Your task to perform on an android device: Open calendar and show me the second week of next month Image 0: 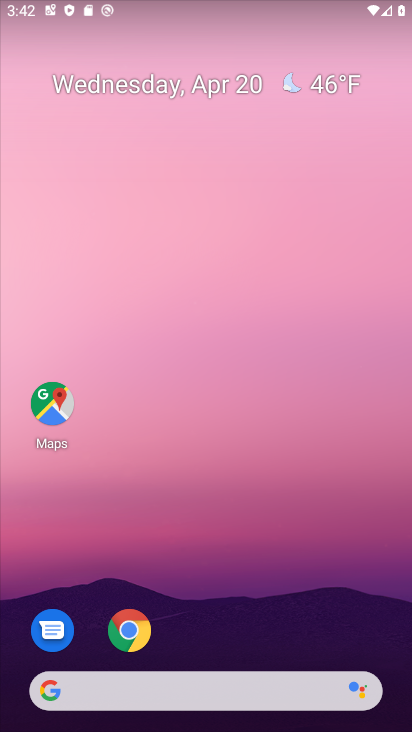
Step 0: drag from (241, 661) to (241, 316)
Your task to perform on an android device: Open calendar and show me the second week of next month Image 1: 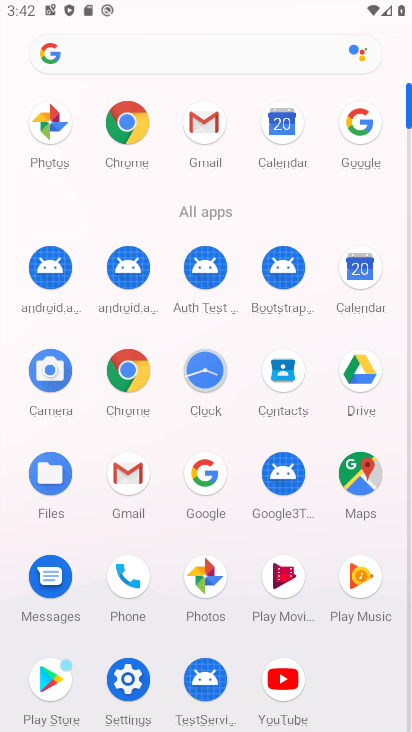
Step 1: click (277, 126)
Your task to perform on an android device: Open calendar and show me the second week of next month Image 2: 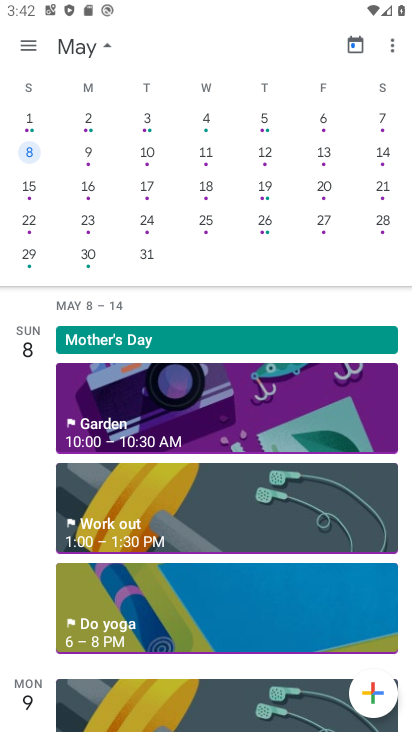
Step 2: task complete